Your task to perform on an android device: Open display settings Image 0: 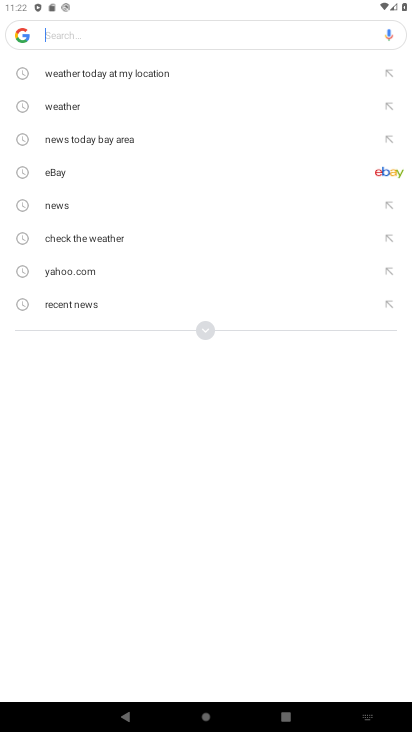
Step 0: press home button
Your task to perform on an android device: Open display settings Image 1: 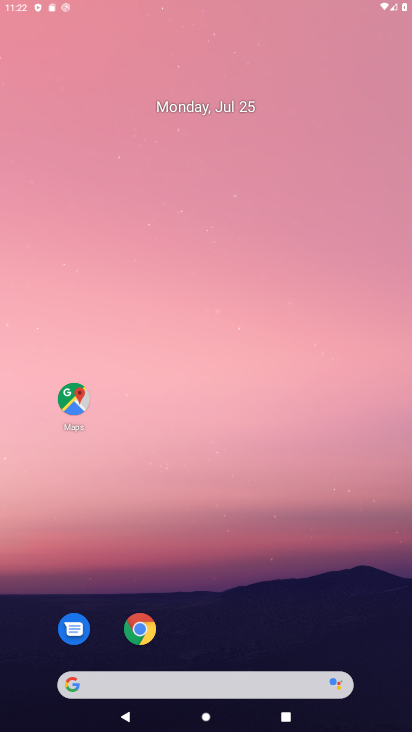
Step 1: drag from (260, 436) to (299, 18)
Your task to perform on an android device: Open display settings Image 2: 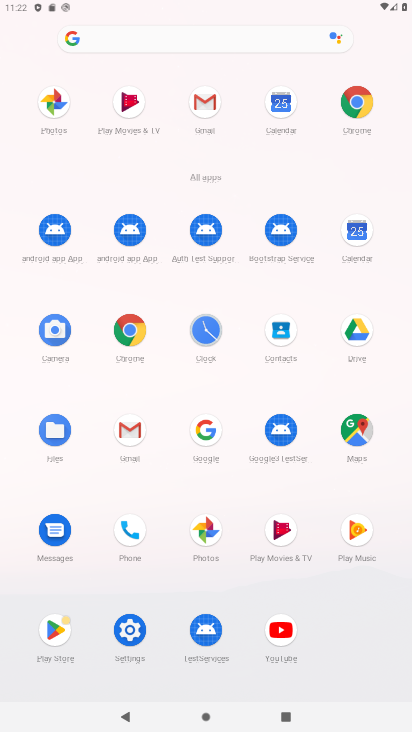
Step 2: click (128, 618)
Your task to perform on an android device: Open display settings Image 3: 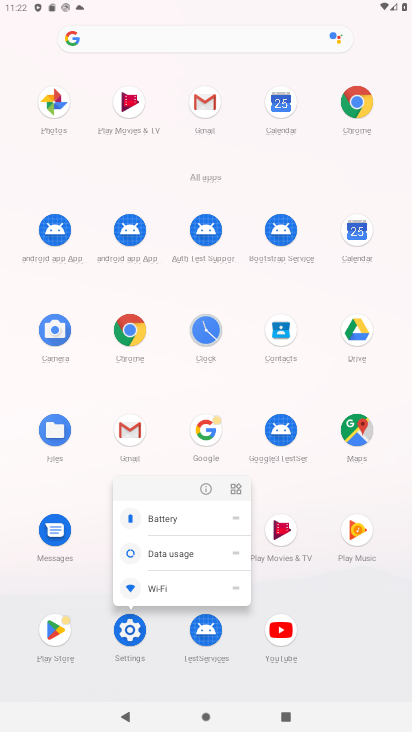
Step 3: click (207, 493)
Your task to perform on an android device: Open display settings Image 4: 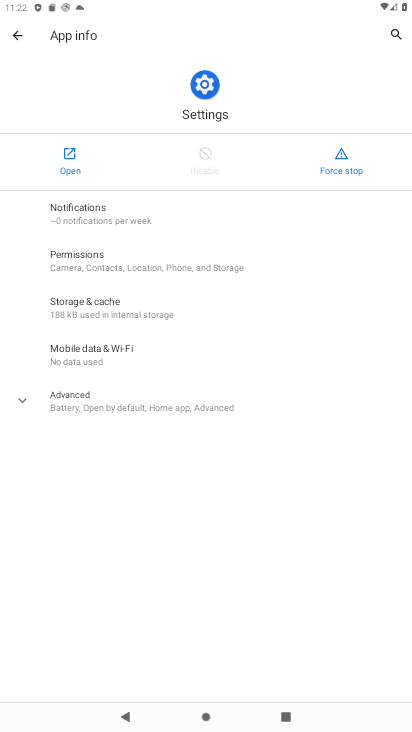
Step 4: click (74, 160)
Your task to perform on an android device: Open display settings Image 5: 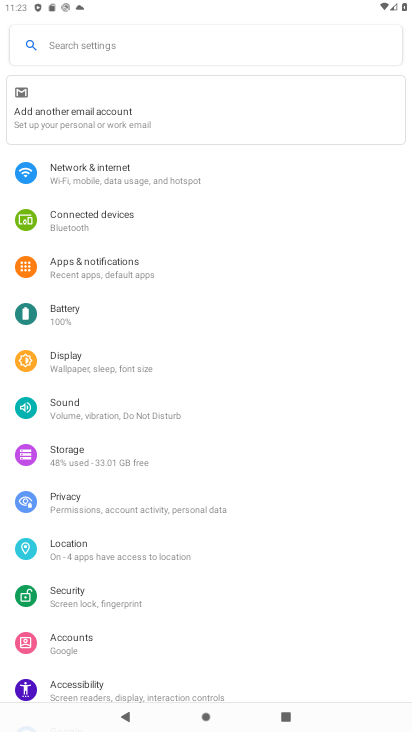
Step 5: click (86, 366)
Your task to perform on an android device: Open display settings Image 6: 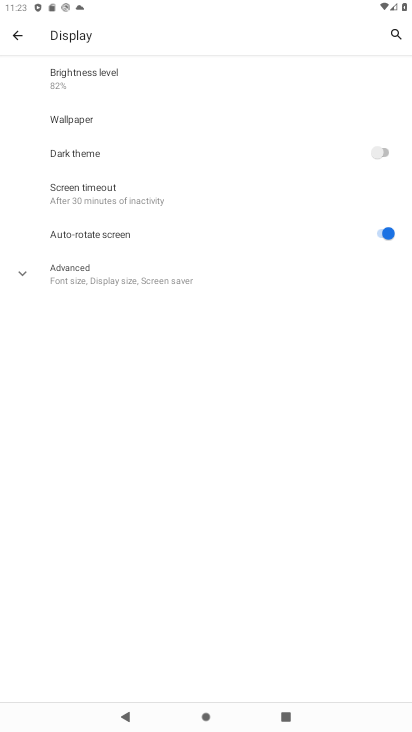
Step 6: task complete